Your task to perform on an android device: Go to CNN.com Image 0: 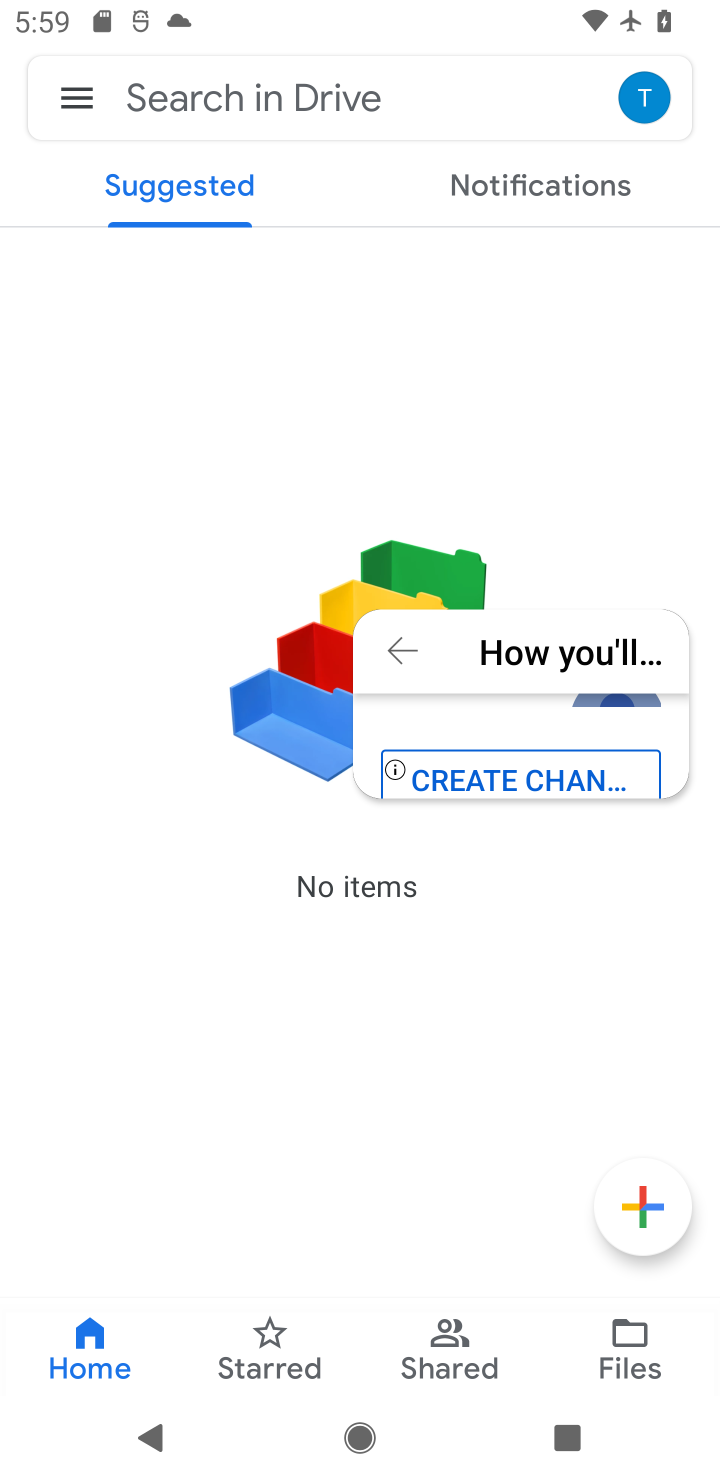
Step 0: press home button
Your task to perform on an android device: Go to CNN.com Image 1: 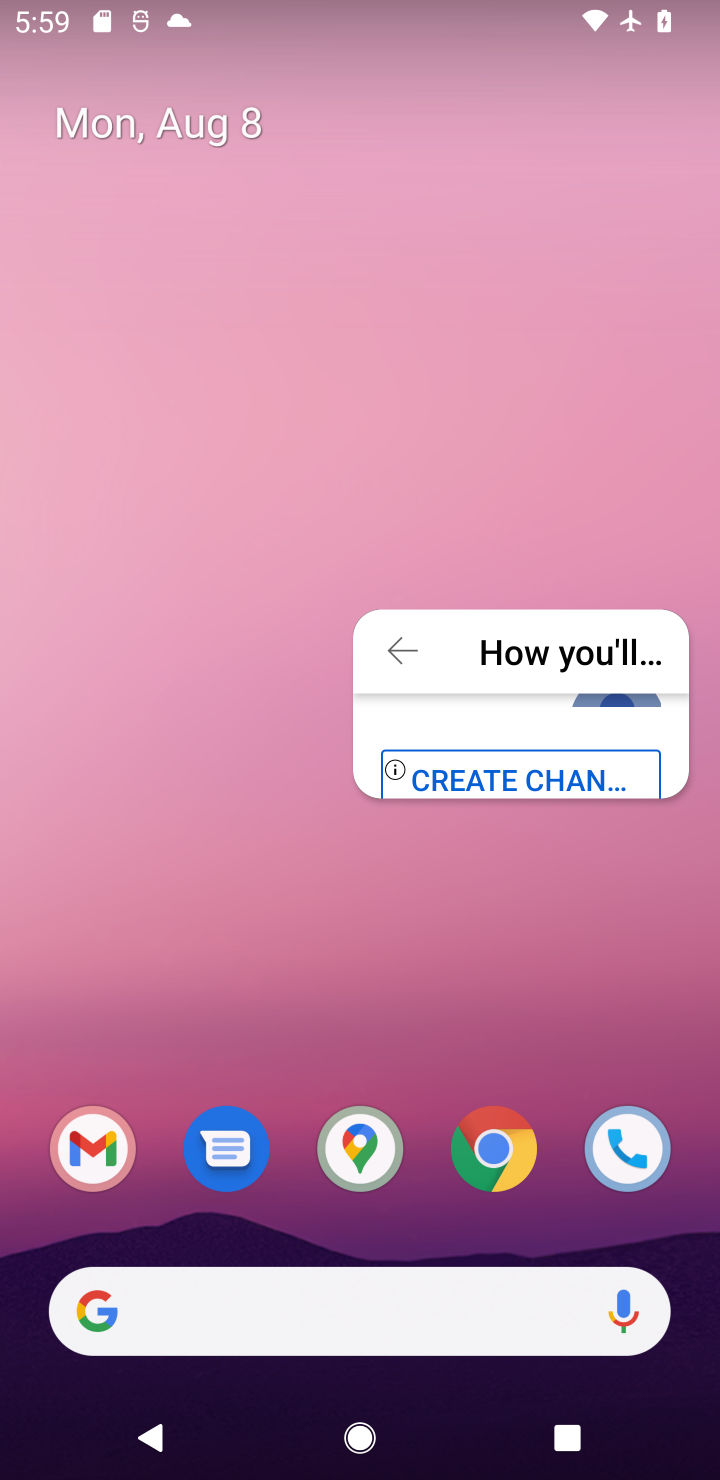
Step 1: drag from (505, 762) to (371, 1348)
Your task to perform on an android device: Go to CNN.com Image 2: 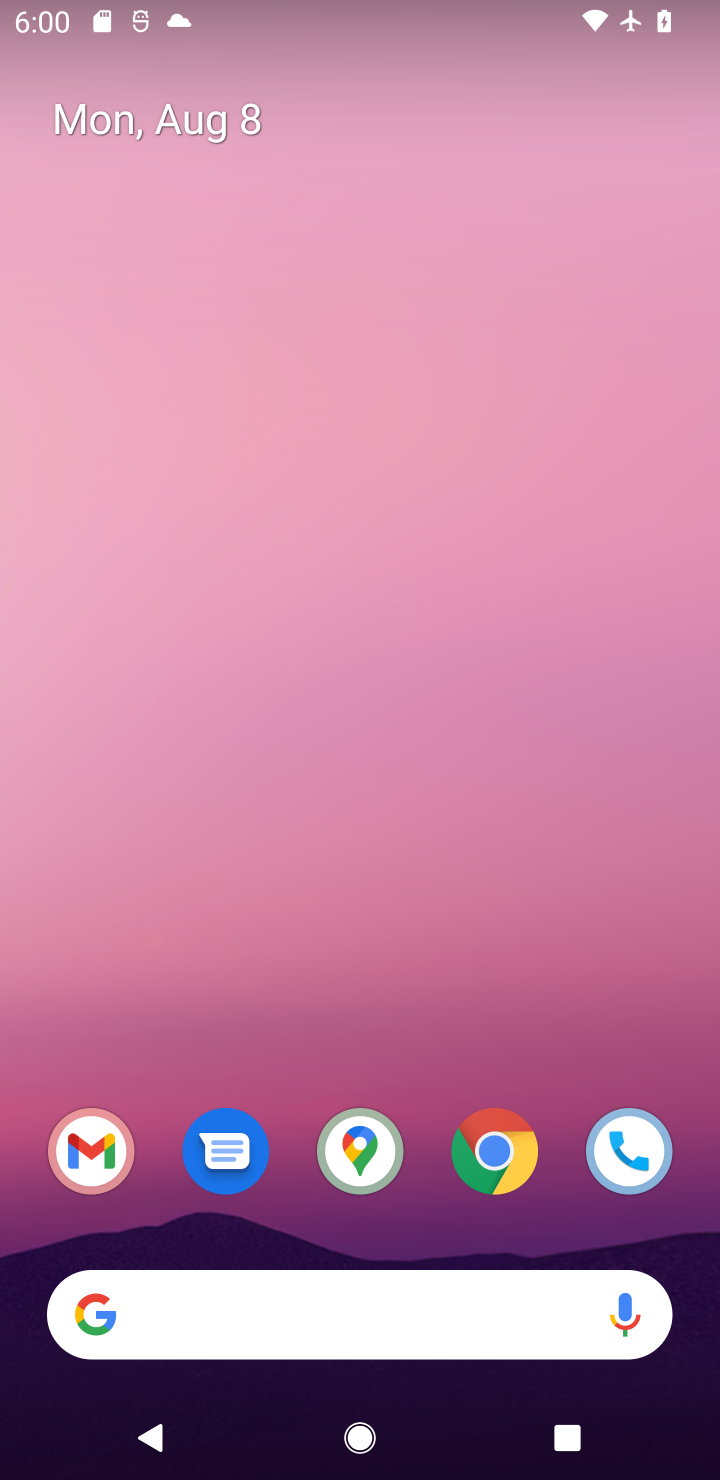
Step 2: click (510, 1130)
Your task to perform on an android device: Go to CNN.com Image 3: 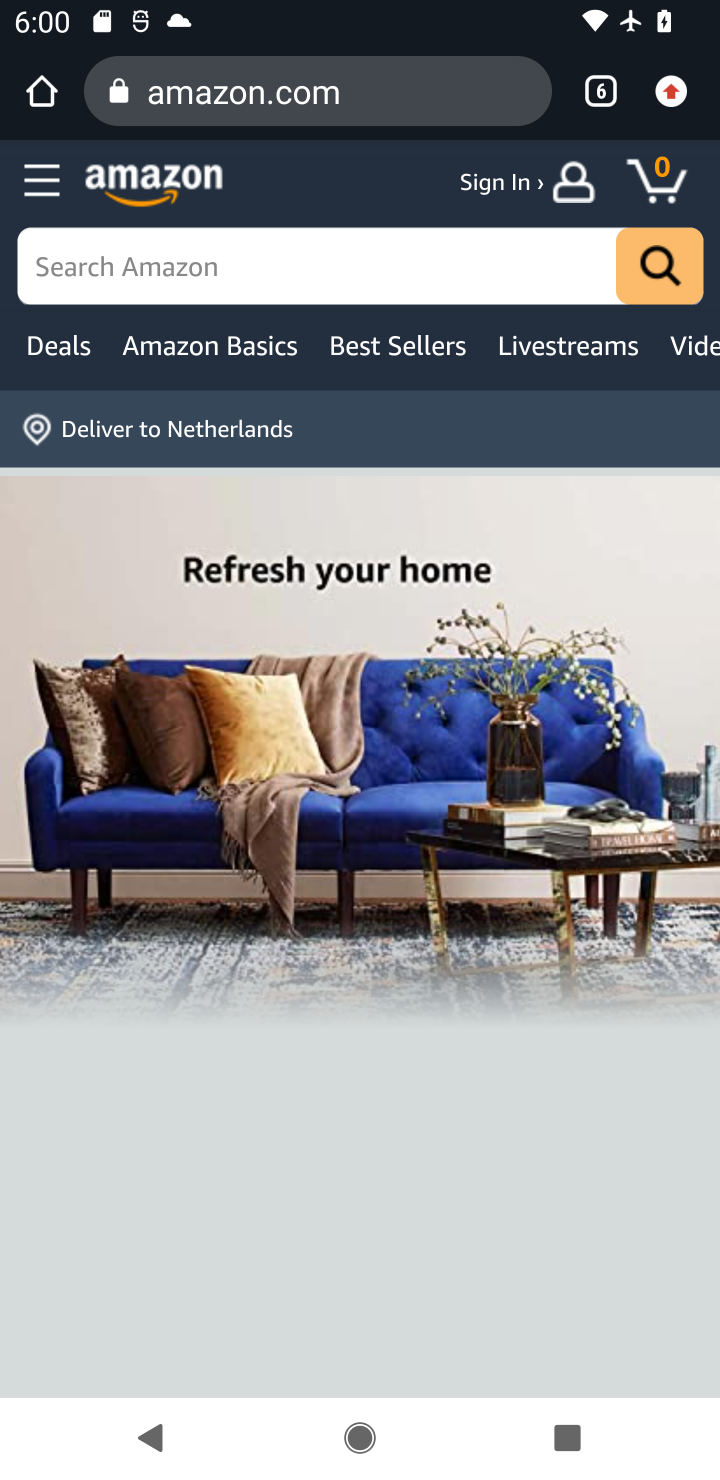
Step 3: click (595, 82)
Your task to perform on an android device: Go to CNN.com Image 4: 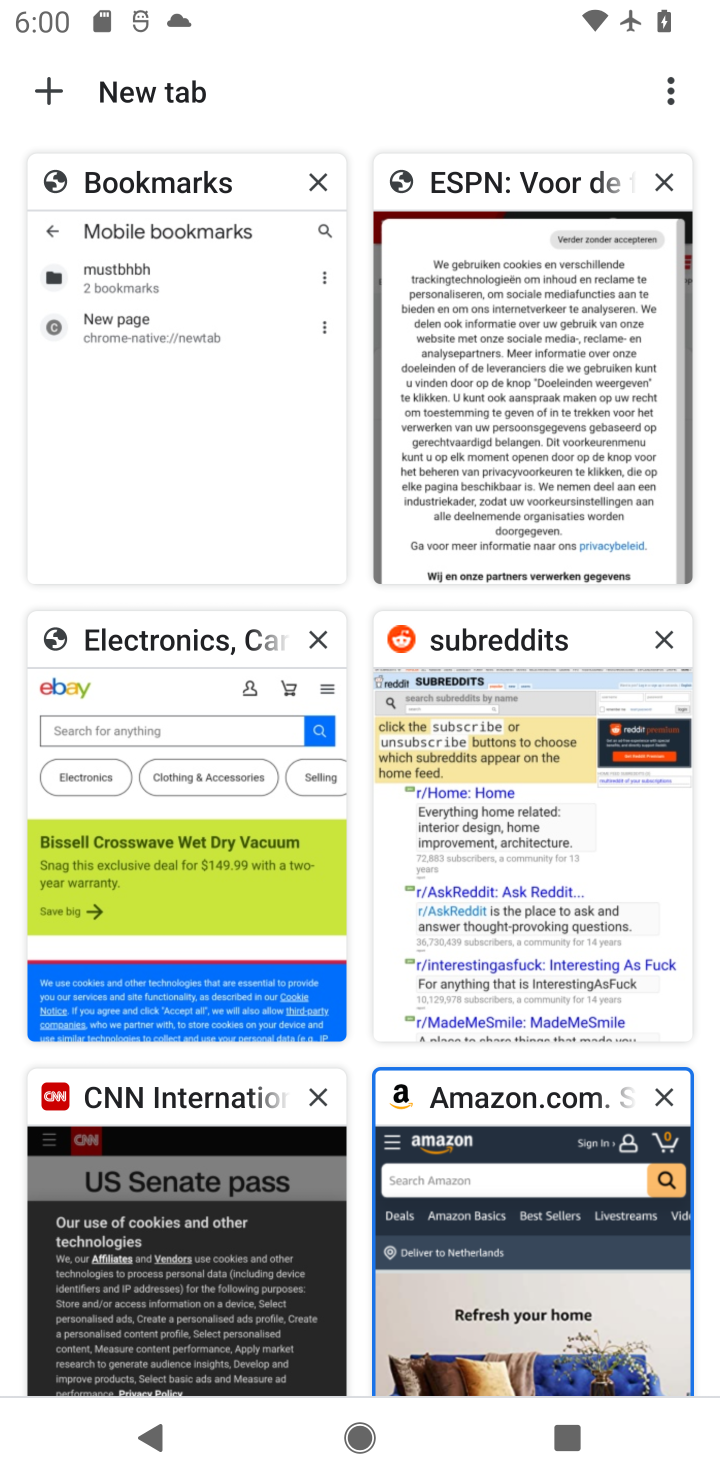
Step 4: click (29, 90)
Your task to perform on an android device: Go to CNN.com Image 5: 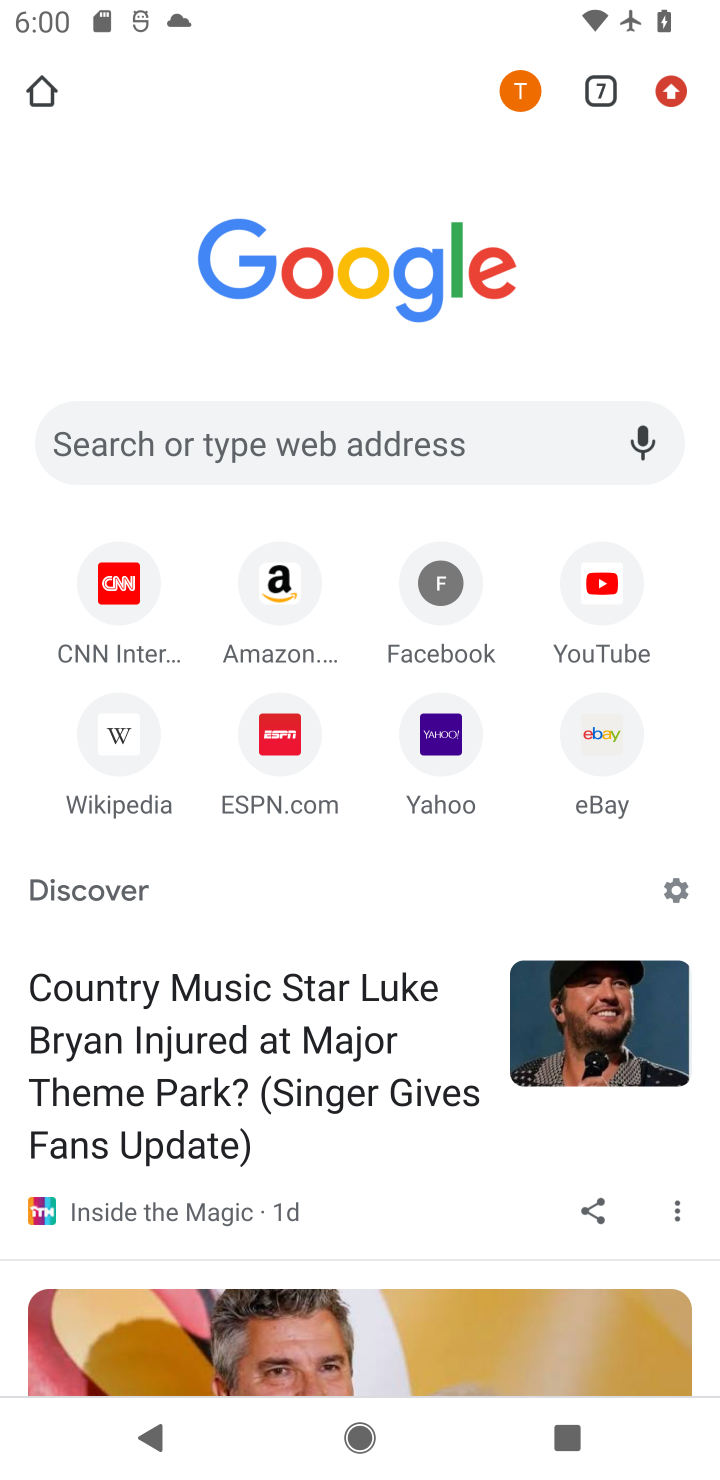
Step 5: click (349, 451)
Your task to perform on an android device: Go to CNN.com Image 6: 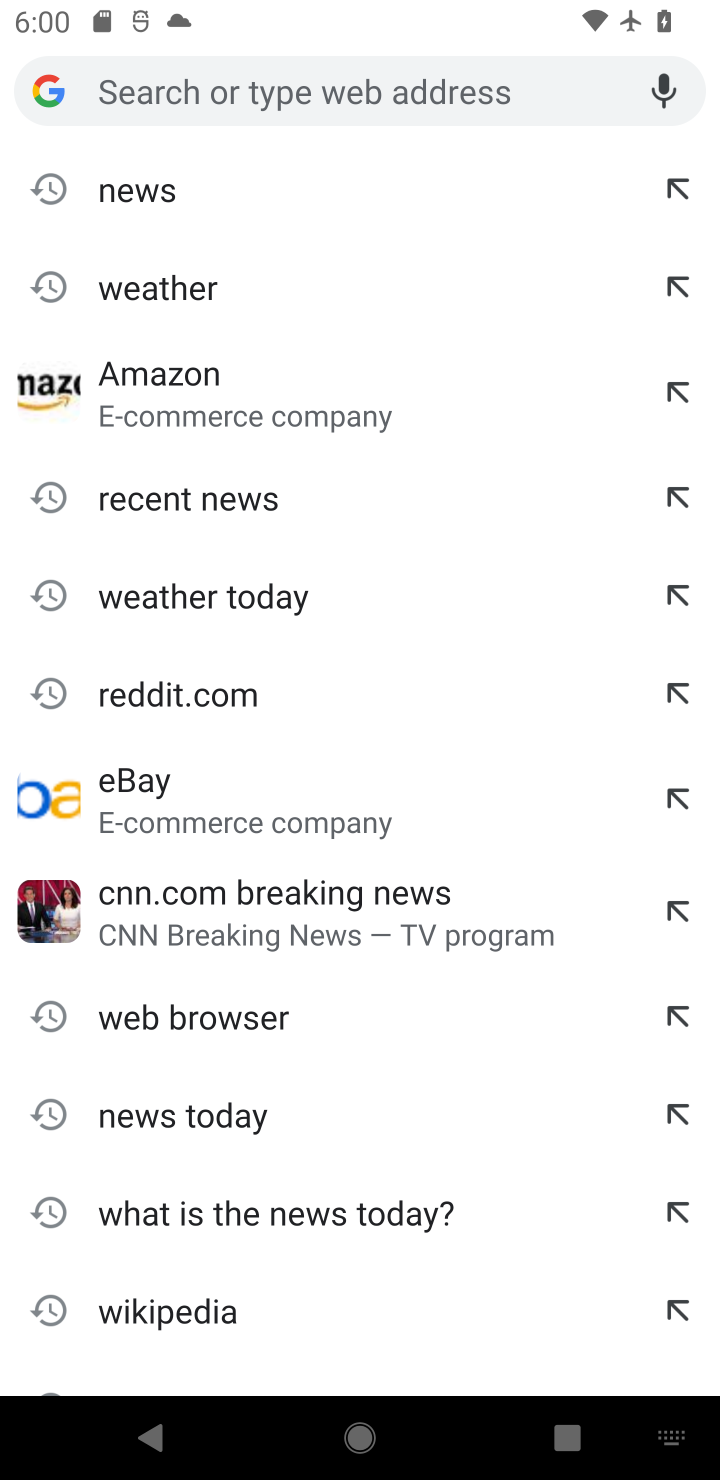
Step 6: type "CNN.com"
Your task to perform on an android device: Go to CNN.com Image 7: 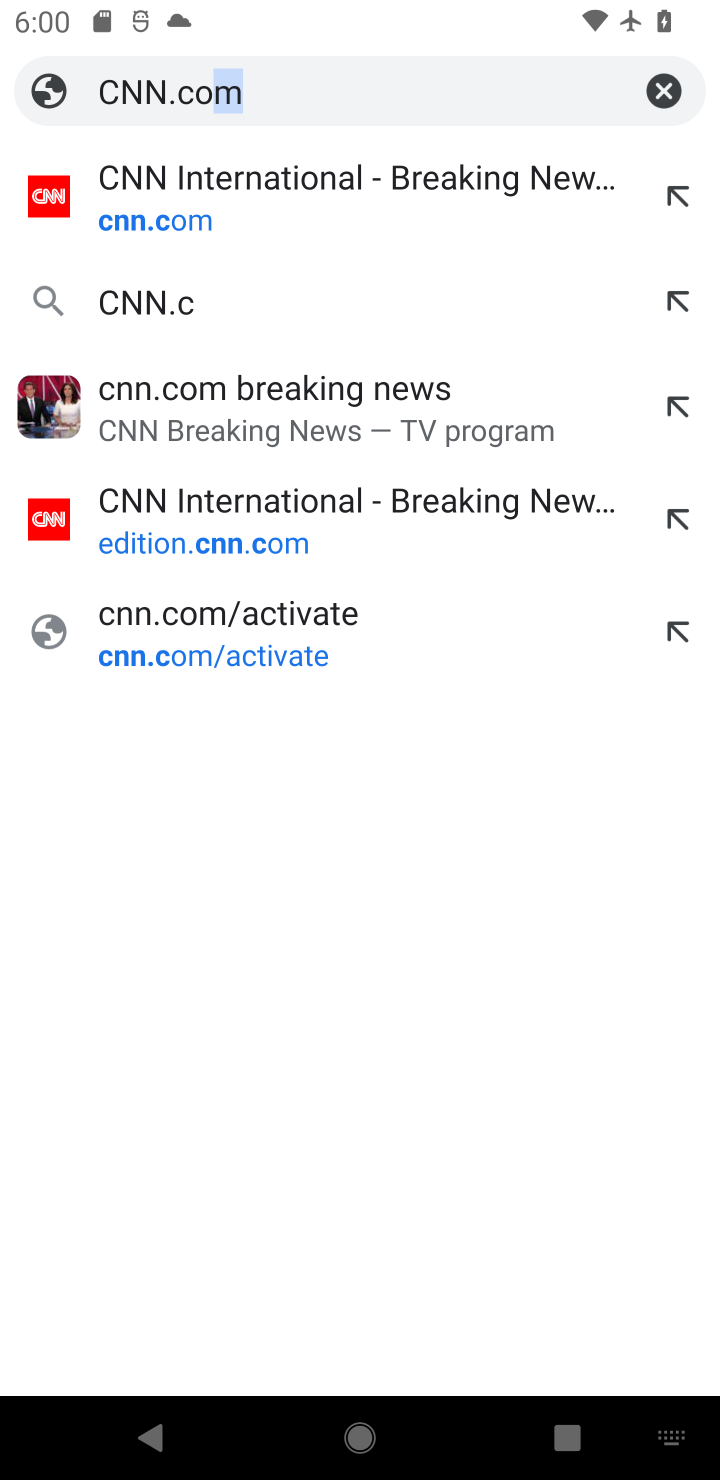
Step 7: type ""
Your task to perform on an android device: Go to CNN.com Image 8: 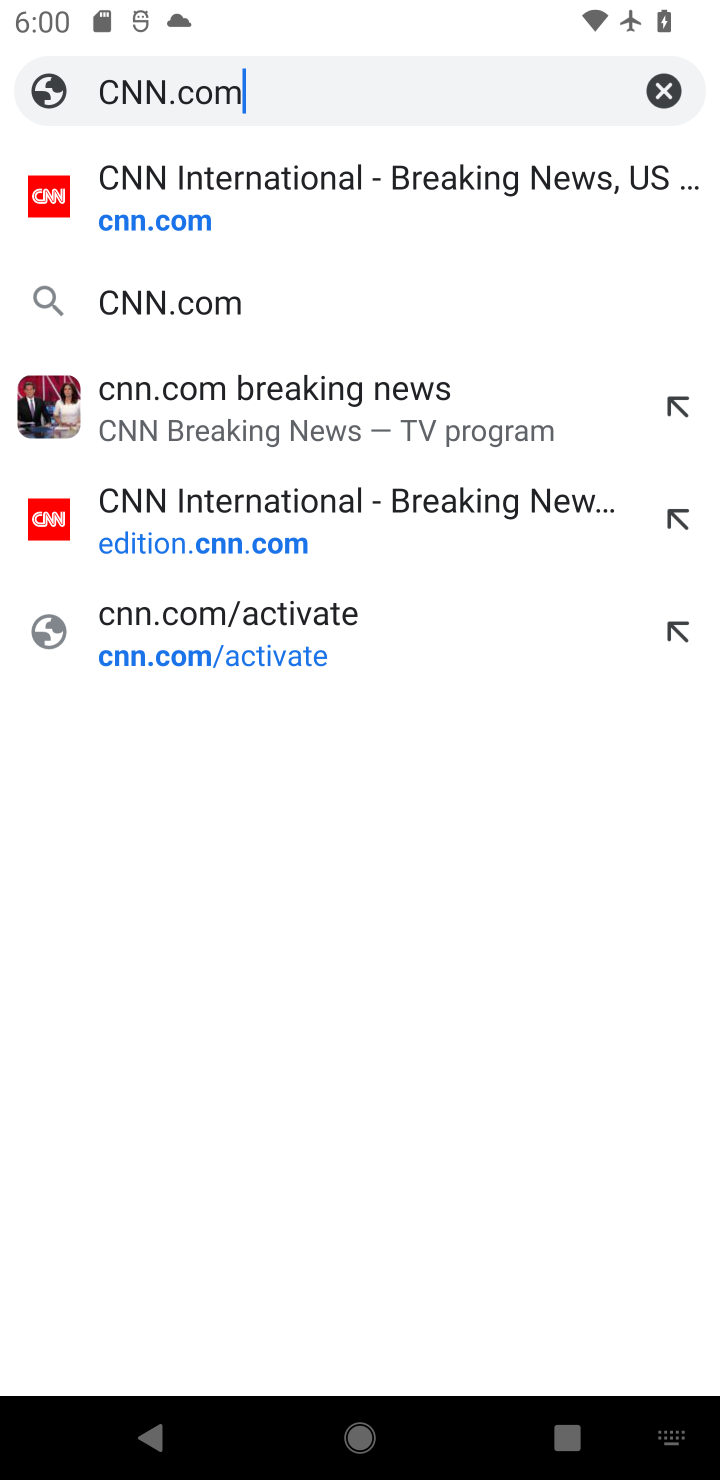
Step 8: click (338, 194)
Your task to perform on an android device: Go to CNN.com Image 9: 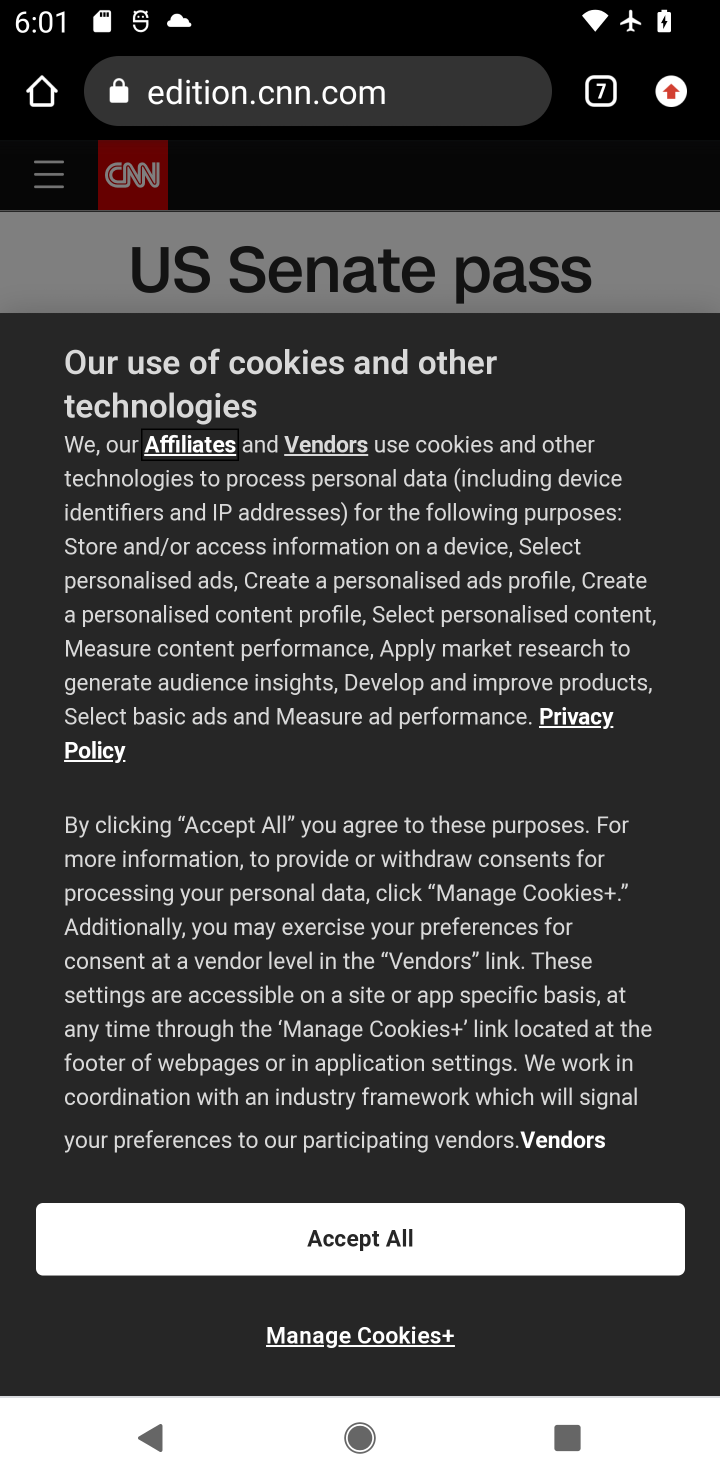
Step 9: task complete